Your task to perform on an android device: open the mobile data screen to see how much data has been used Image 0: 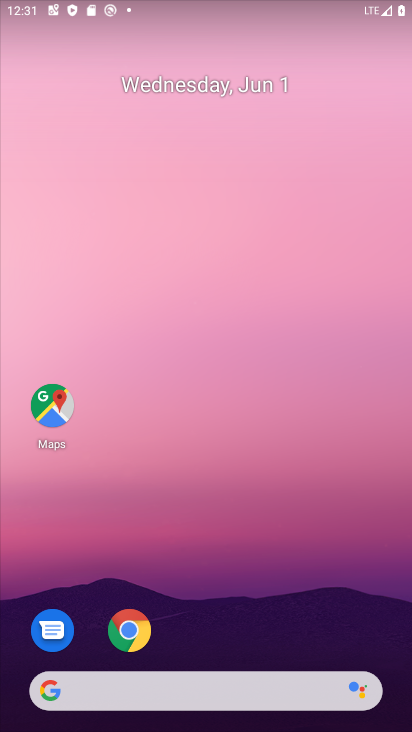
Step 0: drag from (331, 618) to (310, 171)
Your task to perform on an android device: open the mobile data screen to see how much data has been used Image 1: 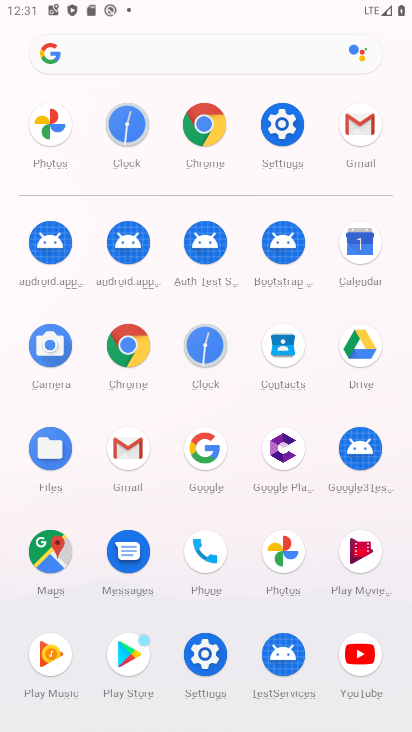
Step 1: click (281, 129)
Your task to perform on an android device: open the mobile data screen to see how much data has been used Image 2: 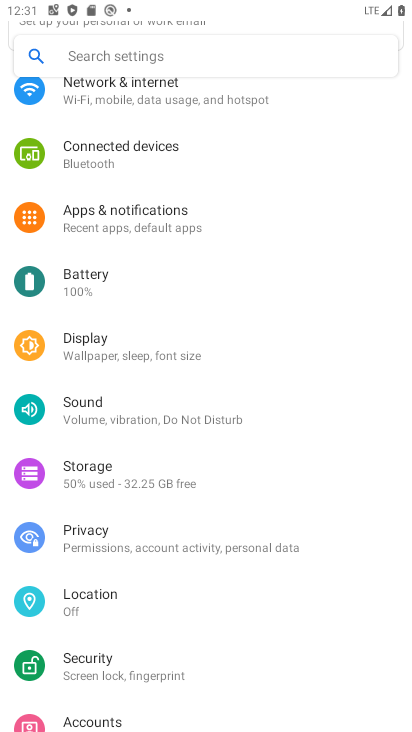
Step 2: click (165, 93)
Your task to perform on an android device: open the mobile data screen to see how much data has been used Image 3: 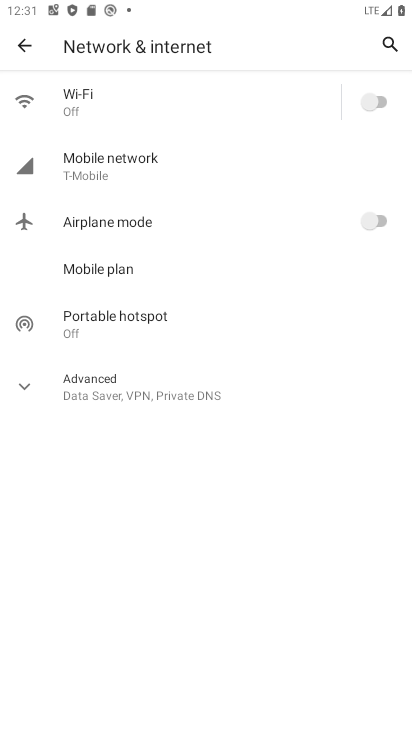
Step 3: click (165, 152)
Your task to perform on an android device: open the mobile data screen to see how much data has been used Image 4: 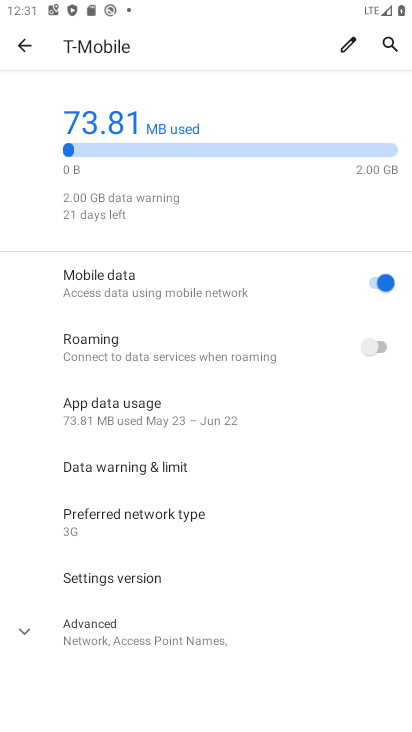
Step 4: task complete